Your task to perform on an android device: Go to ESPN.com Image 0: 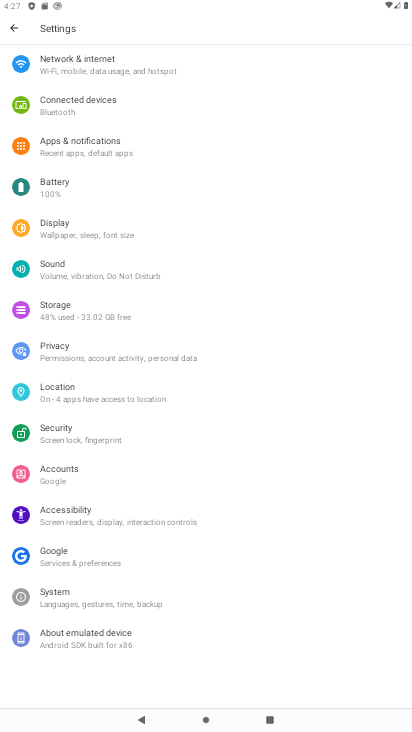
Step 0: press home button
Your task to perform on an android device: Go to ESPN.com Image 1: 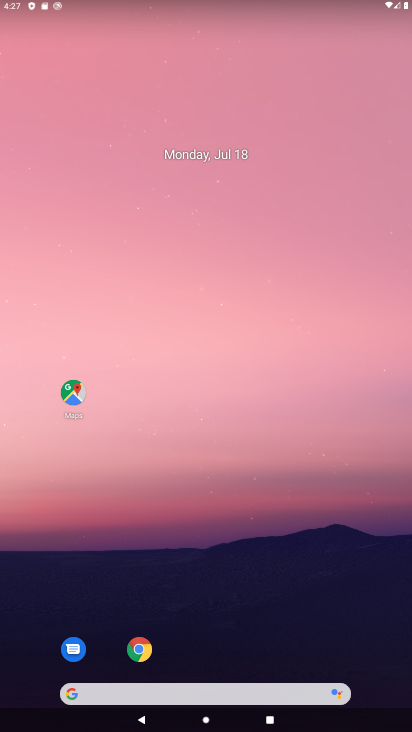
Step 1: click (135, 643)
Your task to perform on an android device: Go to ESPN.com Image 2: 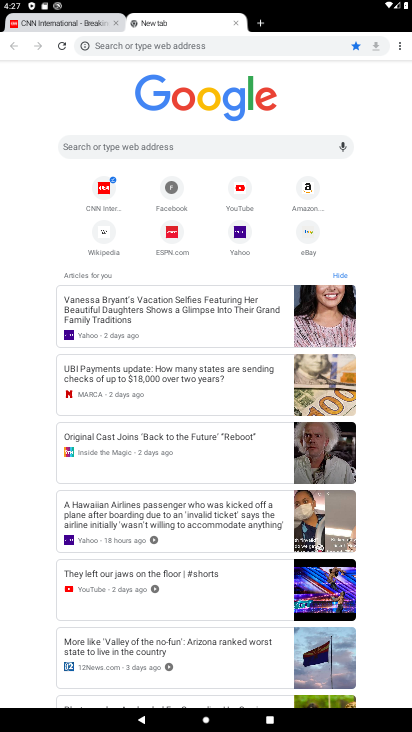
Step 2: click (173, 241)
Your task to perform on an android device: Go to ESPN.com Image 3: 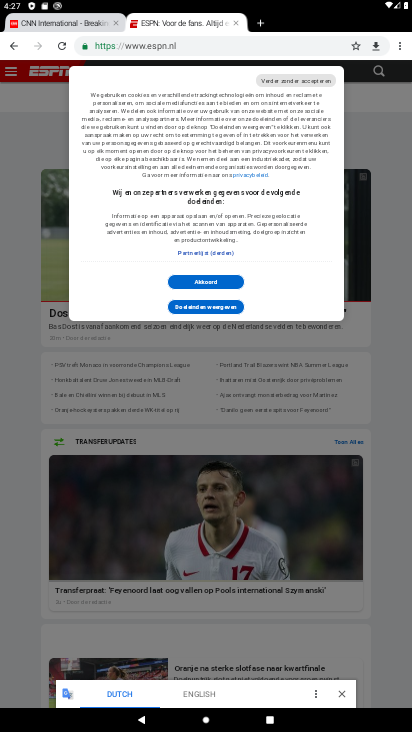
Step 3: task complete